Your task to perform on an android device: turn on the 24-hour format for clock Image 0: 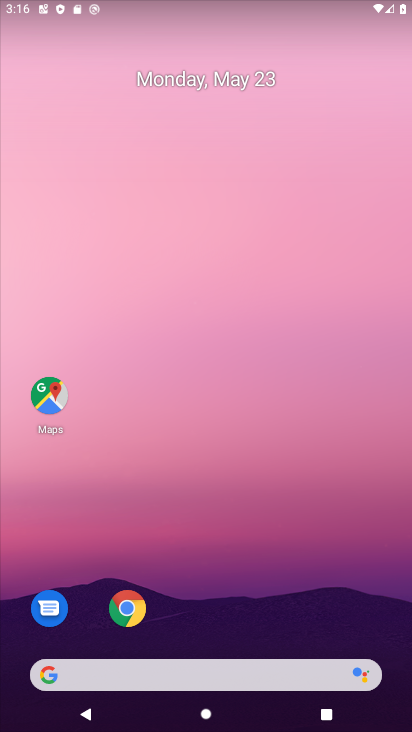
Step 0: drag from (265, 604) to (231, 136)
Your task to perform on an android device: turn on the 24-hour format for clock Image 1: 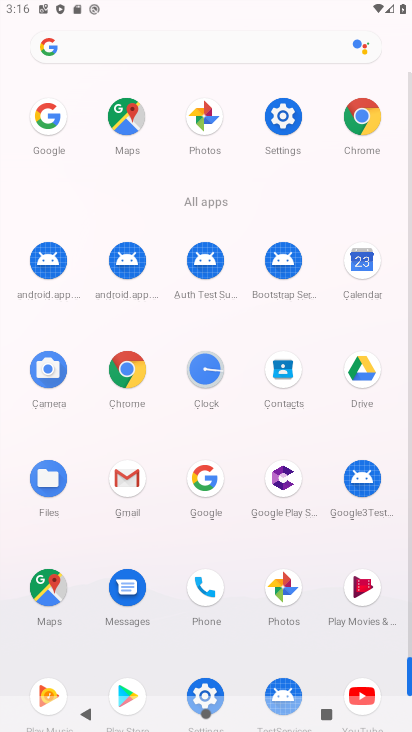
Step 1: click (205, 375)
Your task to perform on an android device: turn on the 24-hour format for clock Image 2: 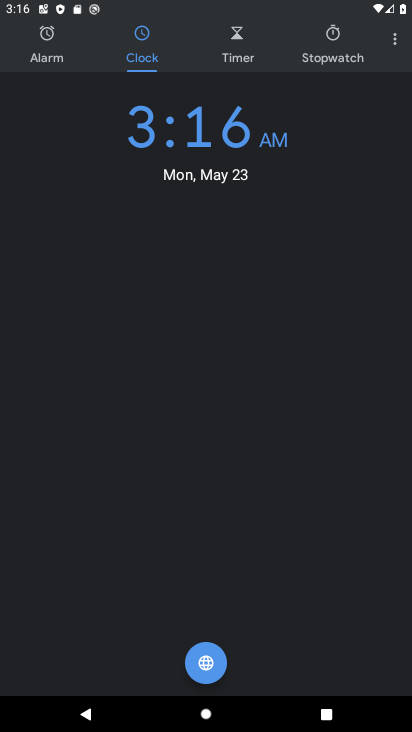
Step 2: click (397, 39)
Your task to perform on an android device: turn on the 24-hour format for clock Image 3: 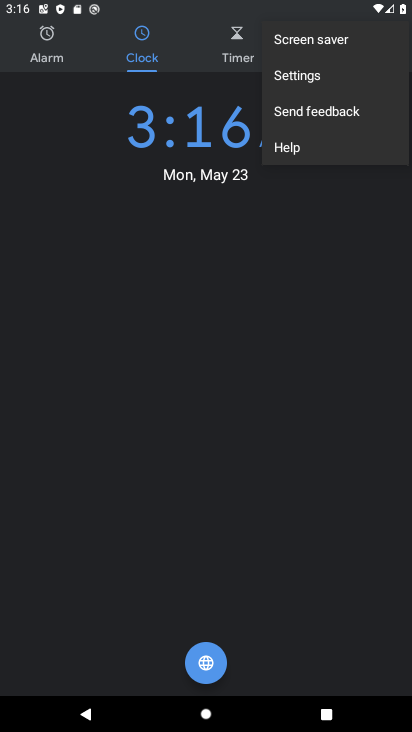
Step 3: click (312, 78)
Your task to perform on an android device: turn on the 24-hour format for clock Image 4: 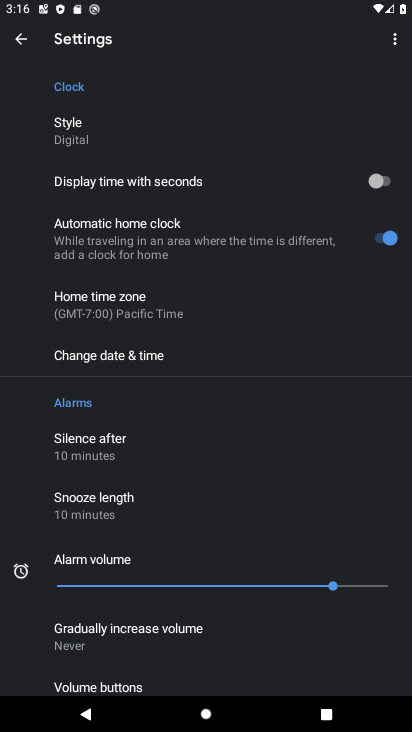
Step 4: drag from (187, 520) to (206, 422)
Your task to perform on an android device: turn on the 24-hour format for clock Image 5: 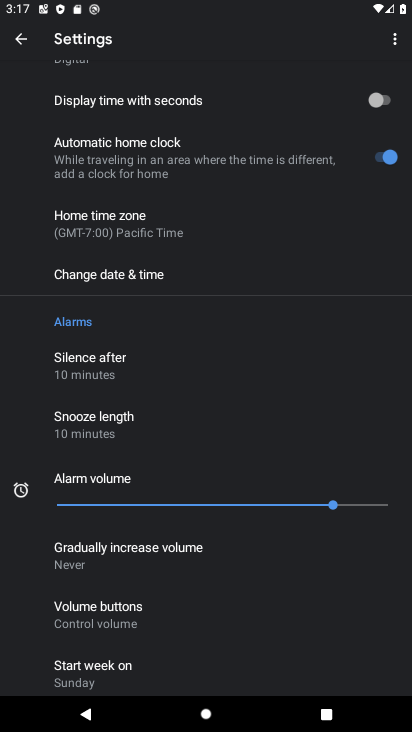
Step 5: drag from (170, 554) to (214, 463)
Your task to perform on an android device: turn on the 24-hour format for clock Image 6: 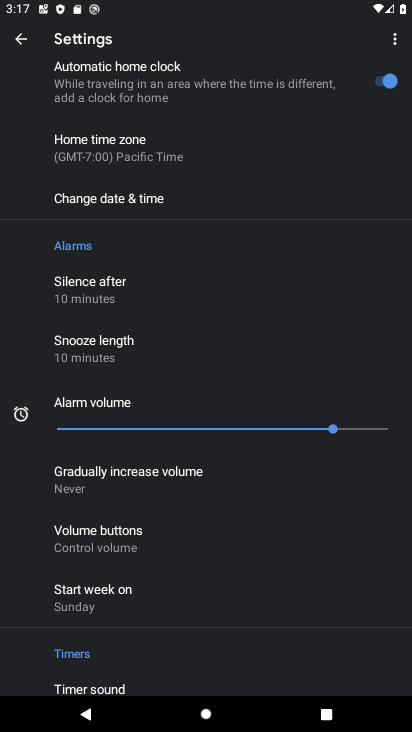
Step 6: click (107, 195)
Your task to perform on an android device: turn on the 24-hour format for clock Image 7: 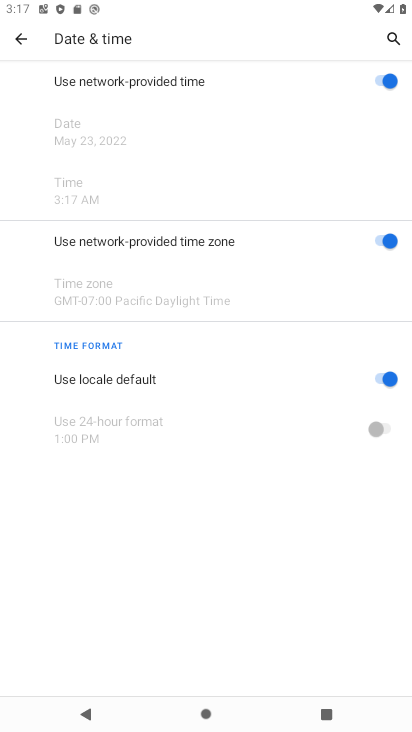
Step 7: click (392, 382)
Your task to perform on an android device: turn on the 24-hour format for clock Image 8: 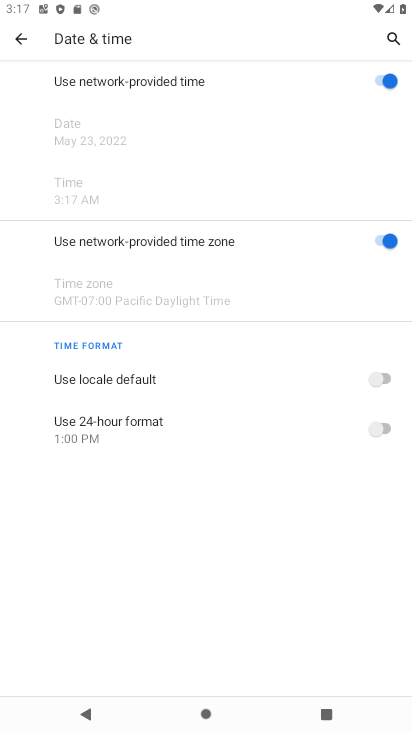
Step 8: click (368, 434)
Your task to perform on an android device: turn on the 24-hour format for clock Image 9: 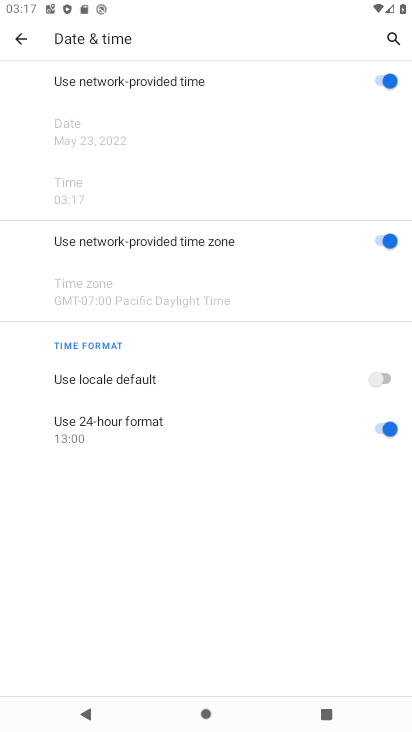
Step 9: task complete